Your task to perform on an android device: turn off notifications in google photos Image 0: 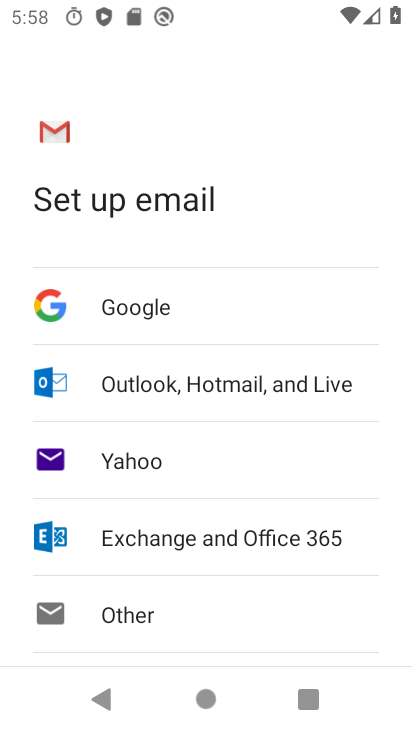
Step 0: press home button
Your task to perform on an android device: turn off notifications in google photos Image 1: 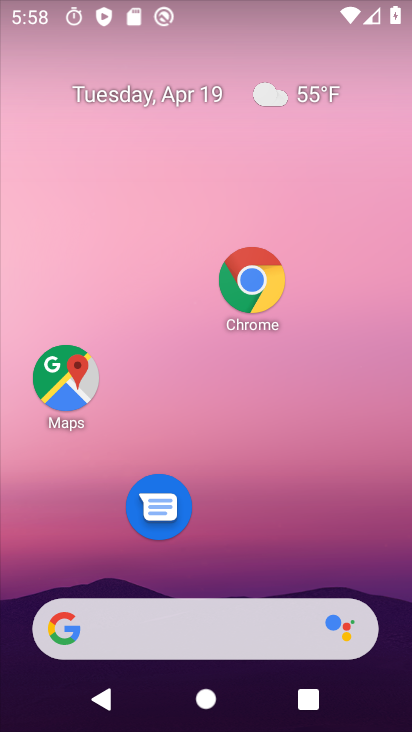
Step 1: drag from (188, 594) to (261, 210)
Your task to perform on an android device: turn off notifications in google photos Image 2: 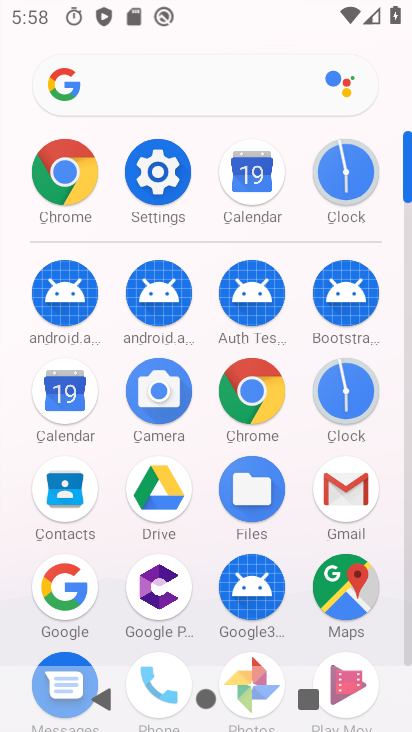
Step 2: drag from (288, 642) to (284, 307)
Your task to perform on an android device: turn off notifications in google photos Image 3: 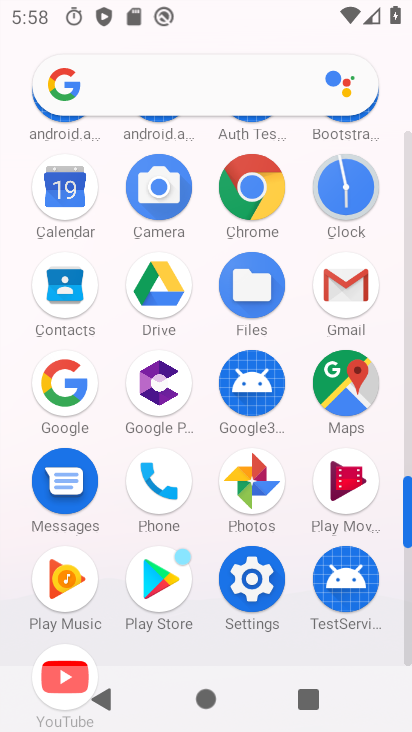
Step 3: click (247, 484)
Your task to perform on an android device: turn off notifications in google photos Image 4: 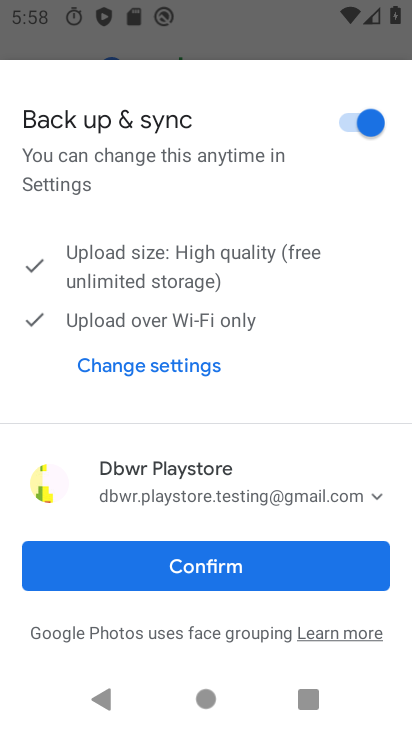
Step 4: click (227, 564)
Your task to perform on an android device: turn off notifications in google photos Image 5: 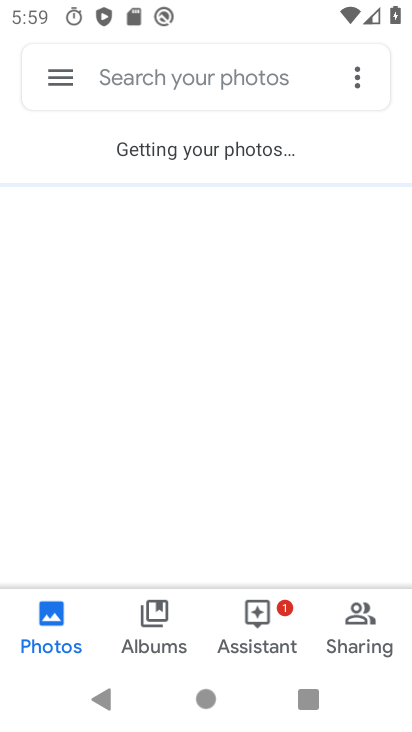
Step 5: click (60, 78)
Your task to perform on an android device: turn off notifications in google photos Image 6: 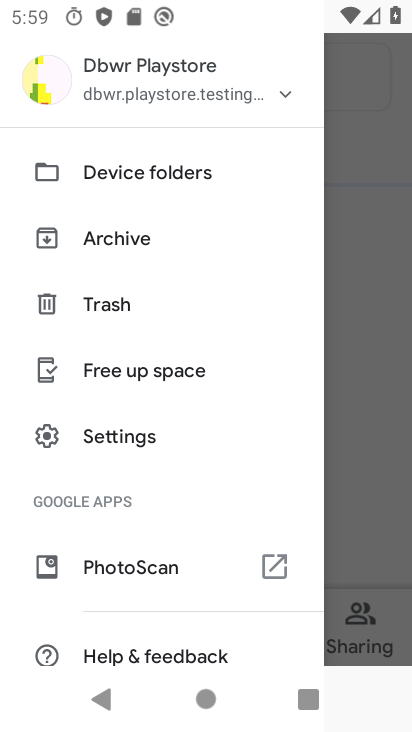
Step 6: click (127, 434)
Your task to perform on an android device: turn off notifications in google photos Image 7: 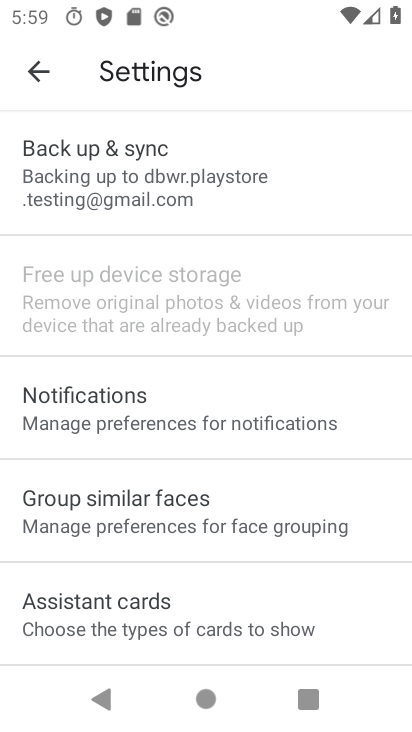
Step 7: click (115, 418)
Your task to perform on an android device: turn off notifications in google photos Image 8: 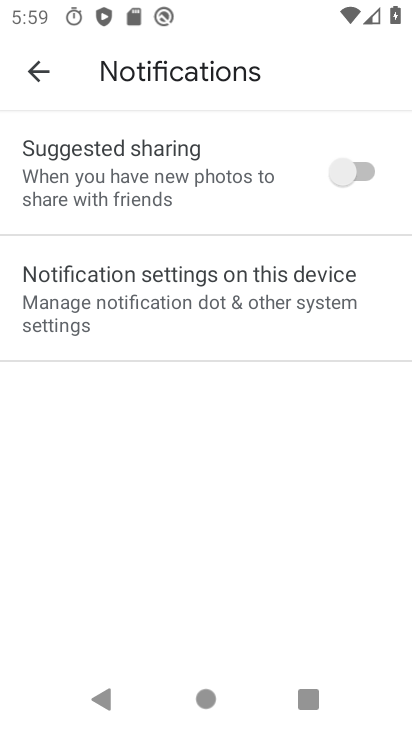
Step 8: click (180, 280)
Your task to perform on an android device: turn off notifications in google photos Image 9: 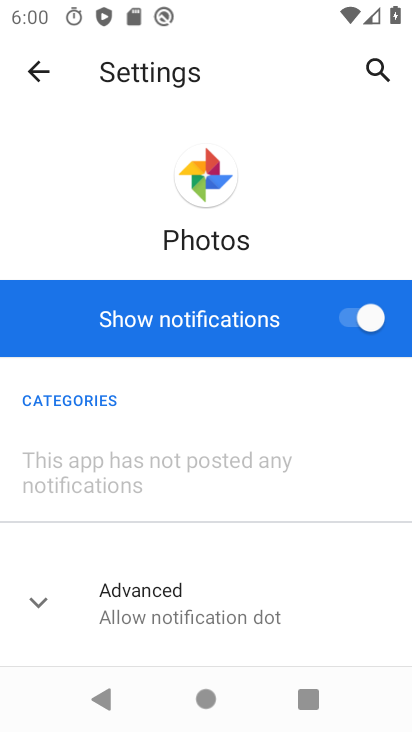
Step 9: click (347, 323)
Your task to perform on an android device: turn off notifications in google photos Image 10: 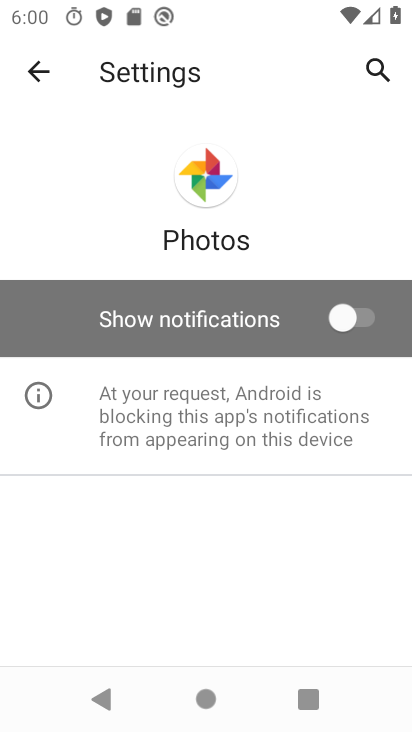
Step 10: task complete